Your task to perform on an android device: Go to Yahoo.com Image 0: 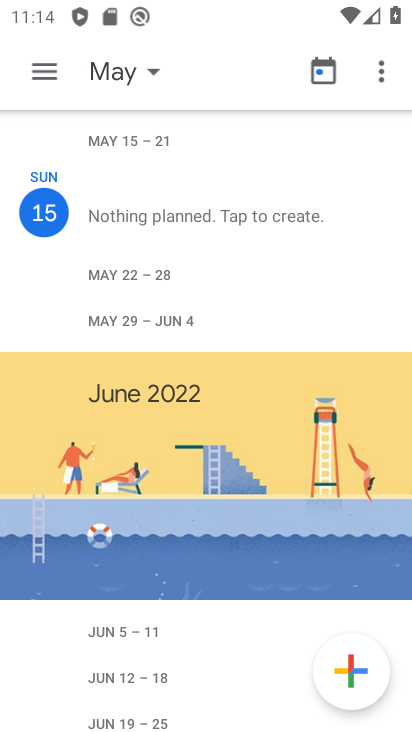
Step 0: press home button
Your task to perform on an android device: Go to Yahoo.com Image 1: 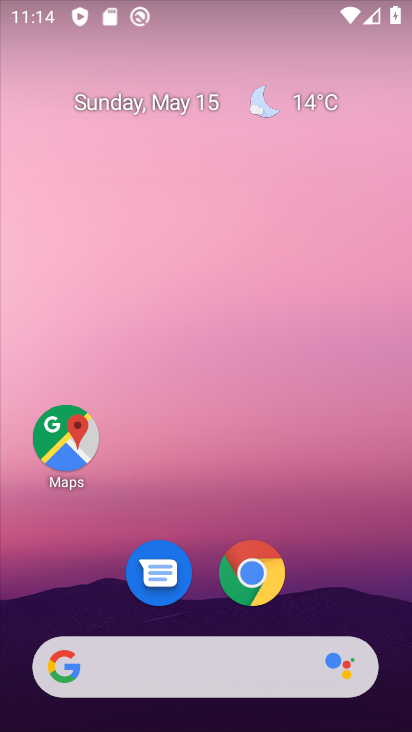
Step 1: click (248, 573)
Your task to perform on an android device: Go to Yahoo.com Image 2: 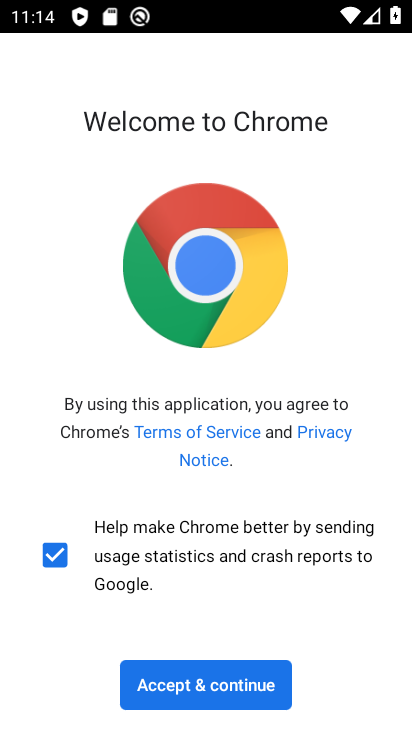
Step 2: click (205, 700)
Your task to perform on an android device: Go to Yahoo.com Image 3: 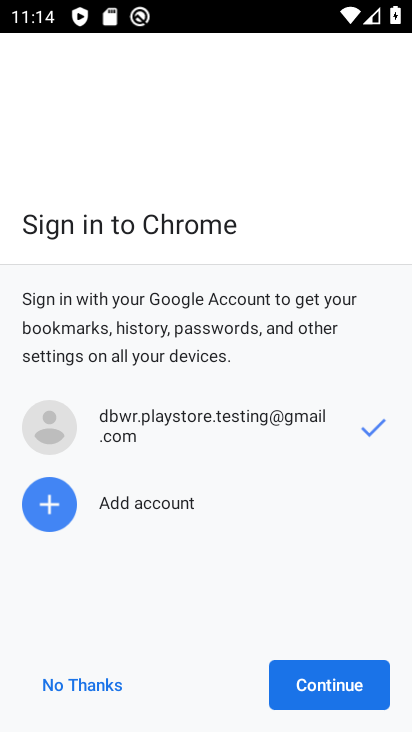
Step 3: click (308, 688)
Your task to perform on an android device: Go to Yahoo.com Image 4: 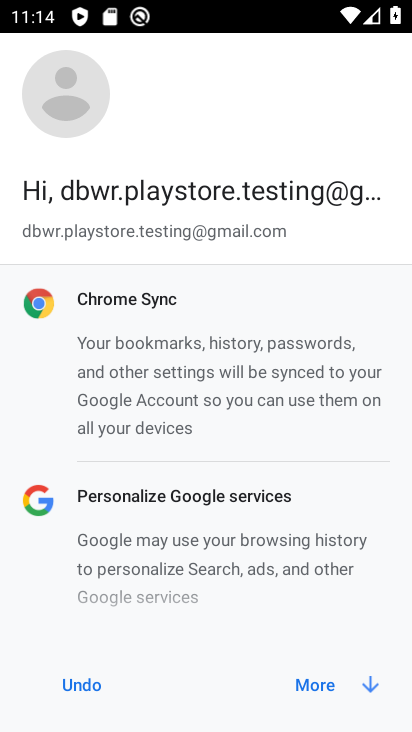
Step 4: click (328, 684)
Your task to perform on an android device: Go to Yahoo.com Image 5: 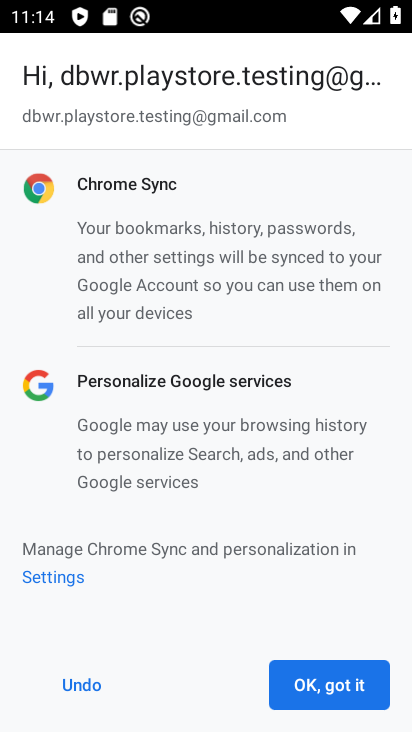
Step 5: click (335, 683)
Your task to perform on an android device: Go to Yahoo.com Image 6: 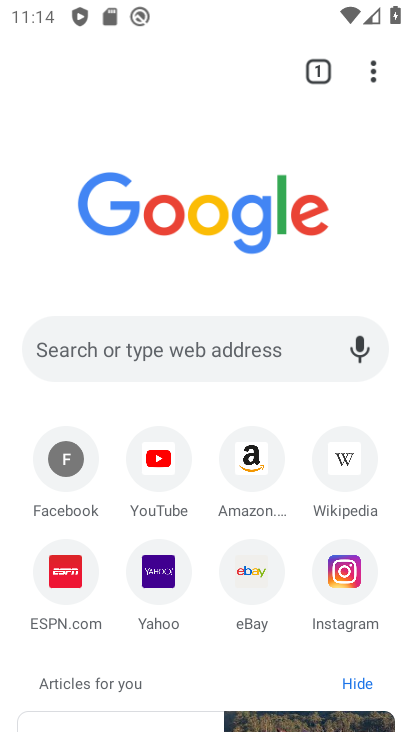
Step 6: click (159, 567)
Your task to perform on an android device: Go to Yahoo.com Image 7: 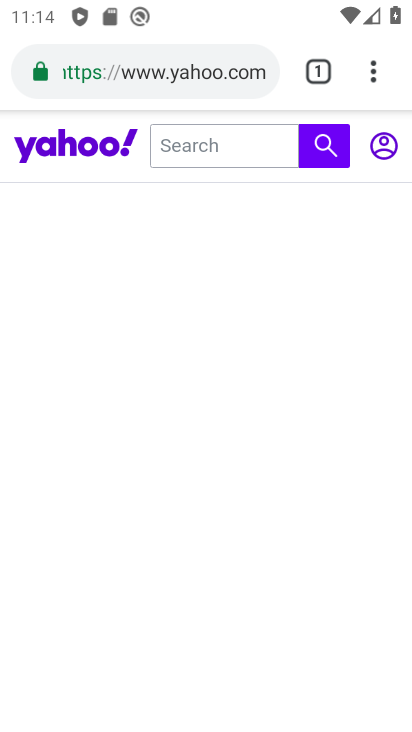
Step 7: task complete